Your task to perform on an android device: set default search engine in the chrome app Image 0: 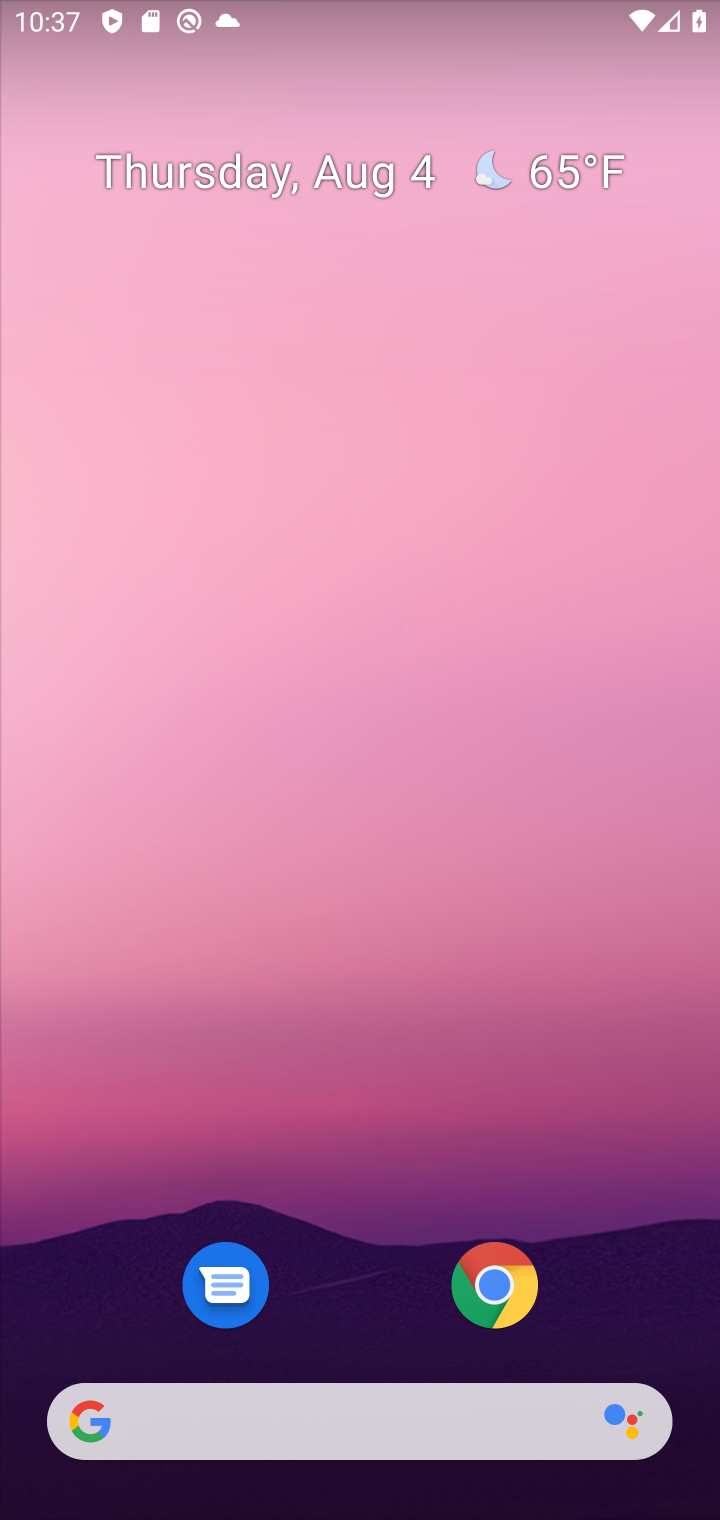
Step 0: drag from (407, 1346) to (355, 94)
Your task to perform on an android device: set default search engine in the chrome app Image 1: 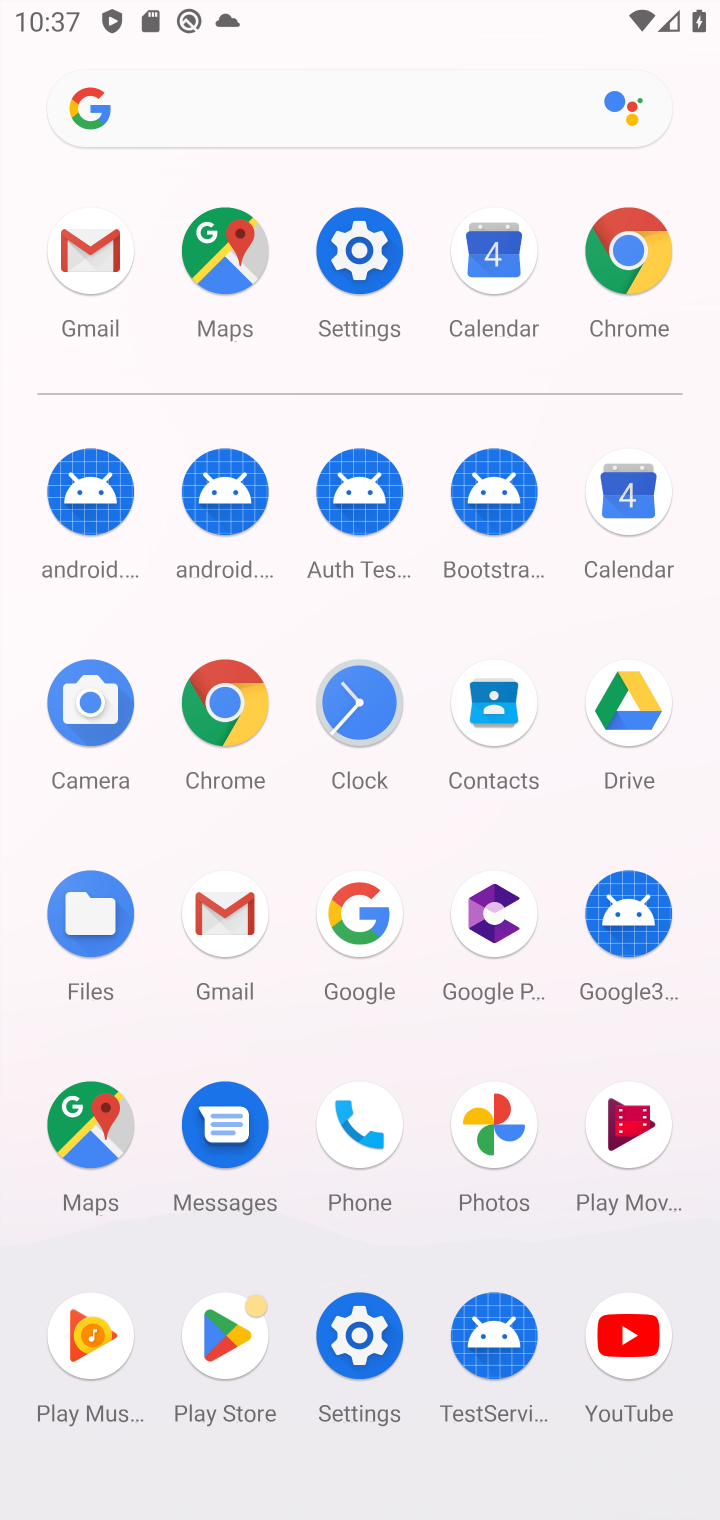
Step 1: click (218, 693)
Your task to perform on an android device: set default search engine in the chrome app Image 2: 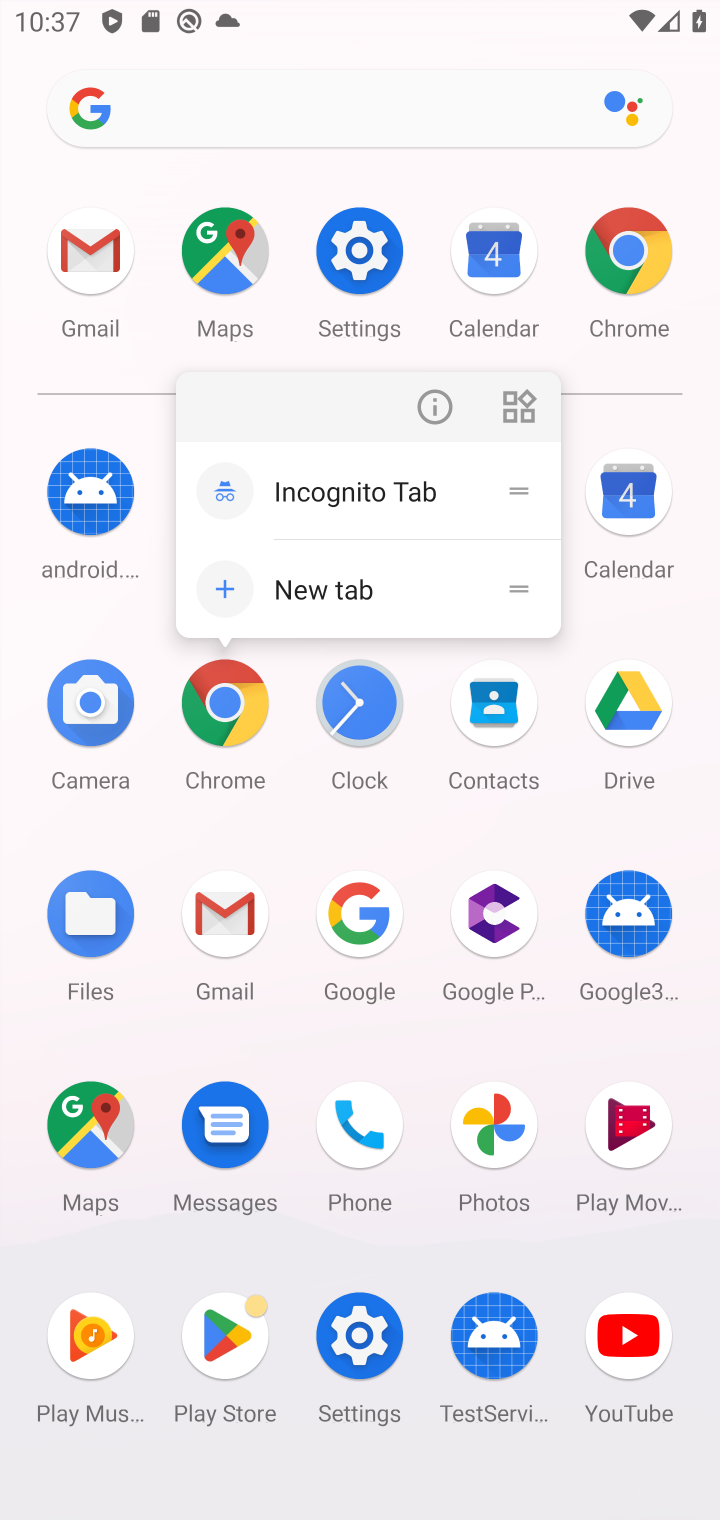
Step 2: click (231, 705)
Your task to perform on an android device: set default search engine in the chrome app Image 3: 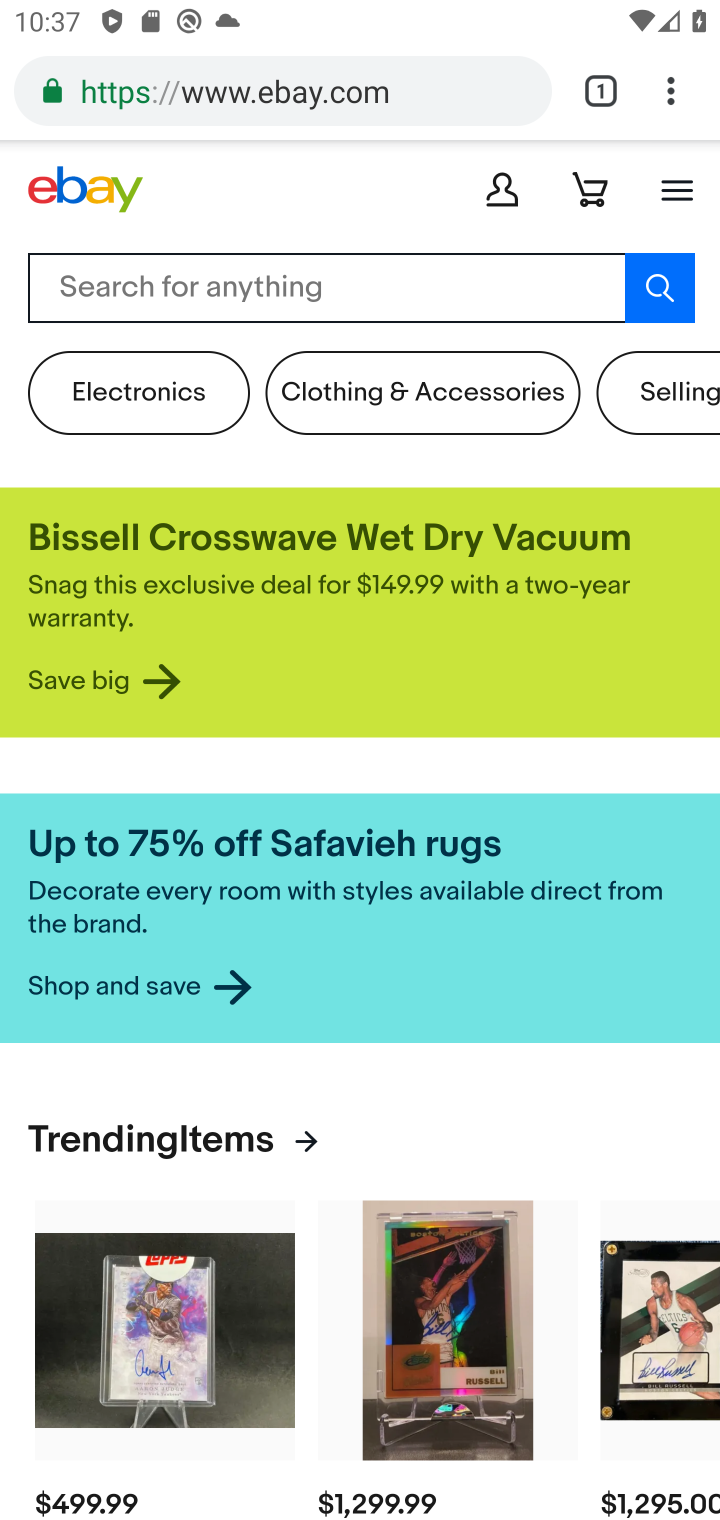
Step 3: drag from (676, 91) to (355, 1220)
Your task to perform on an android device: set default search engine in the chrome app Image 4: 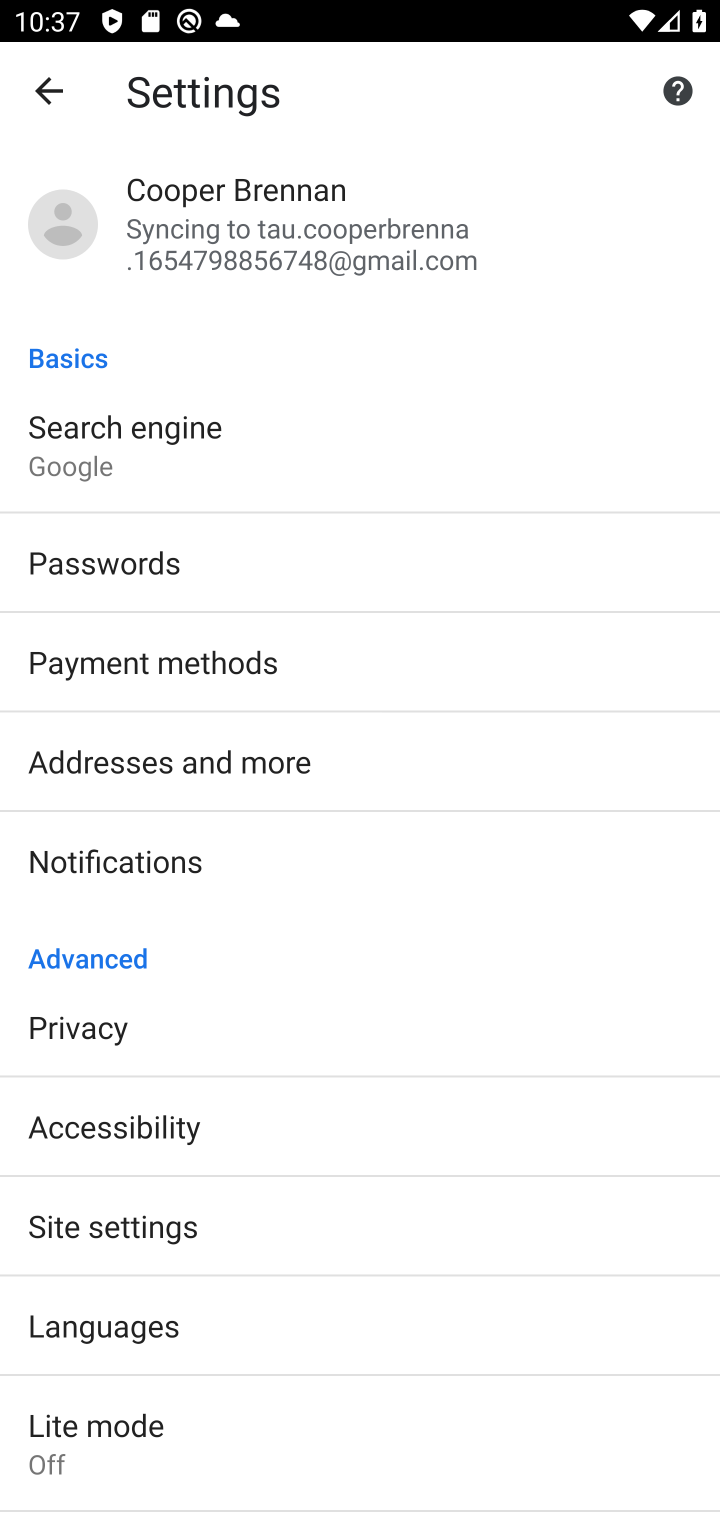
Step 4: click (135, 468)
Your task to perform on an android device: set default search engine in the chrome app Image 5: 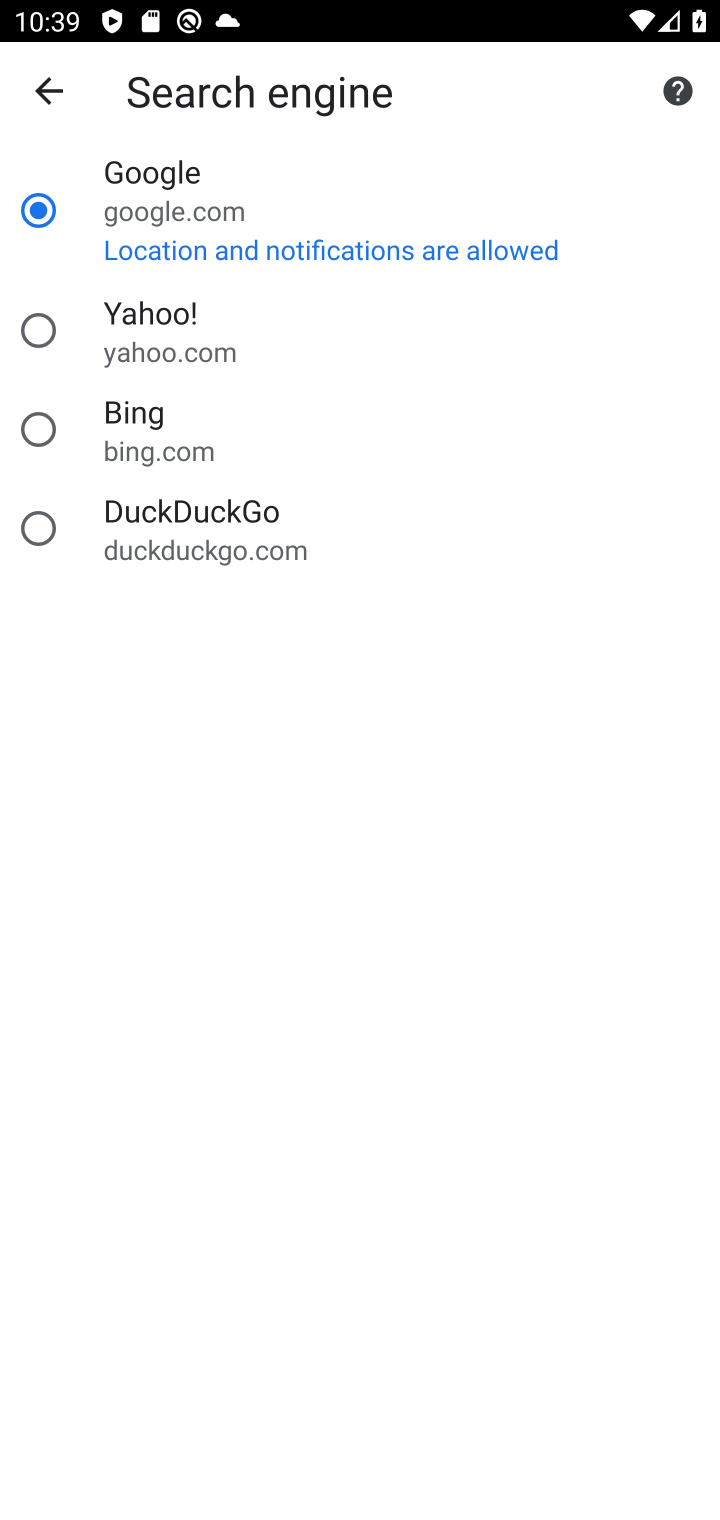
Step 5: task complete